Your task to perform on an android device: Do I have any events tomorrow? Image 0: 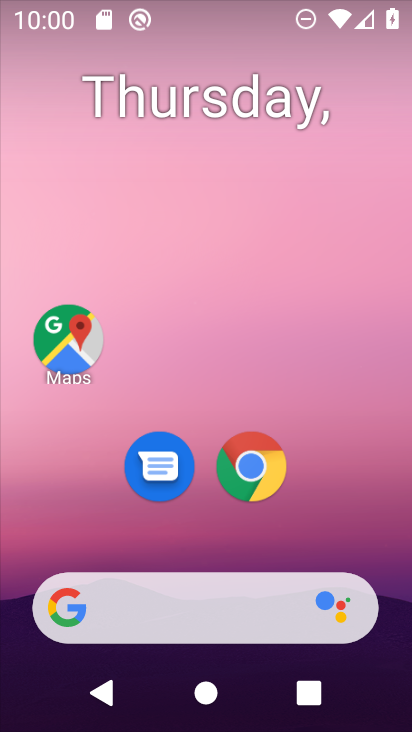
Step 0: drag from (217, 598) to (258, 101)
Your task to perform on an android device: Do I have any events tomorrow? Image 1: 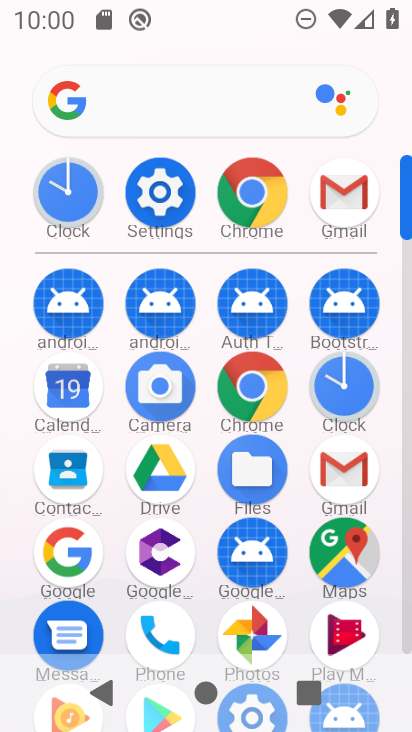
Step 1: click (58, 402)
Your task to perform on an android device: Do I have any events tomorrow? Image 2: 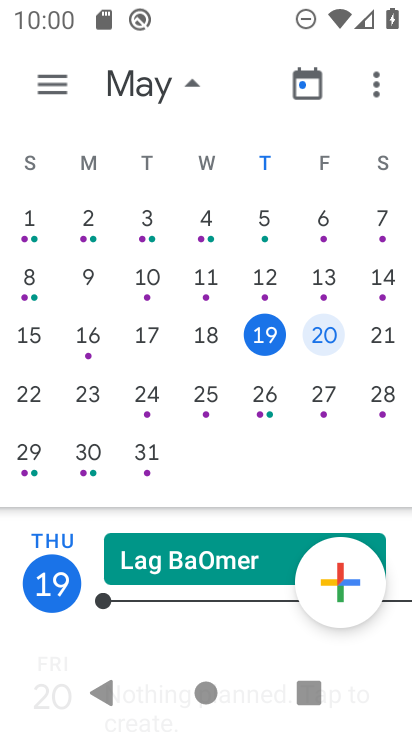
Step 2: click (392, 334)
Your task to perform on an android device: Do I have any events tomorrow? Image 3: 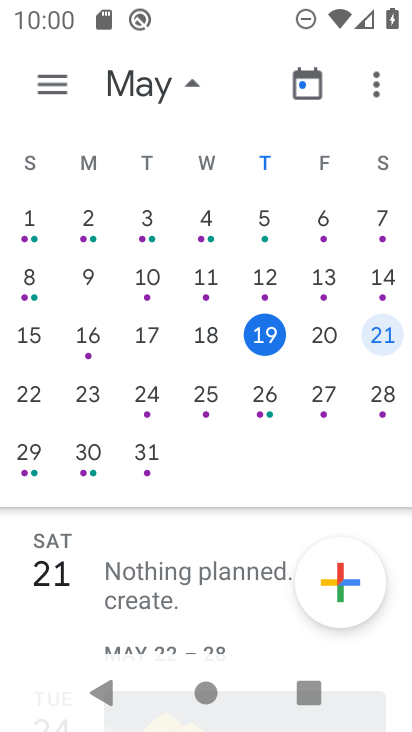
Step 3: task complete